Your task to perform on an android device: Go to ESPN.com Image 0: 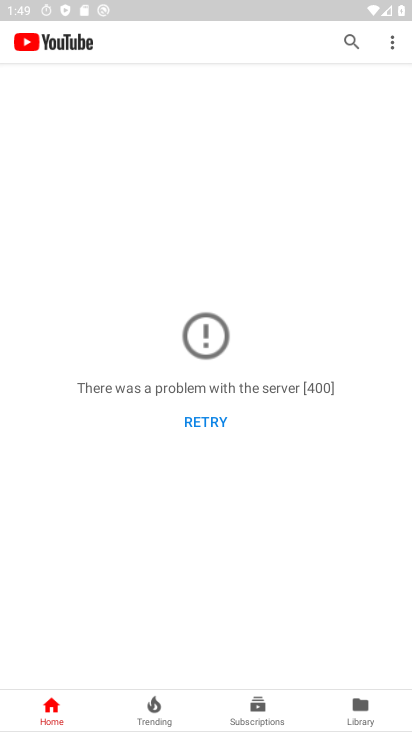
Step 0: press home button
Your task to perform on an android device: Go to ESPN.com Image 1: 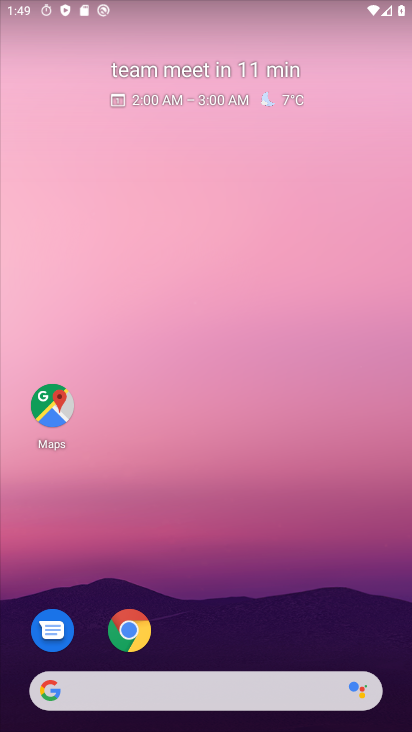
Step 1: drag from (226, 670) to (186, 304)
Your task to perform on an android device: Go to ESPN.com Image 2: 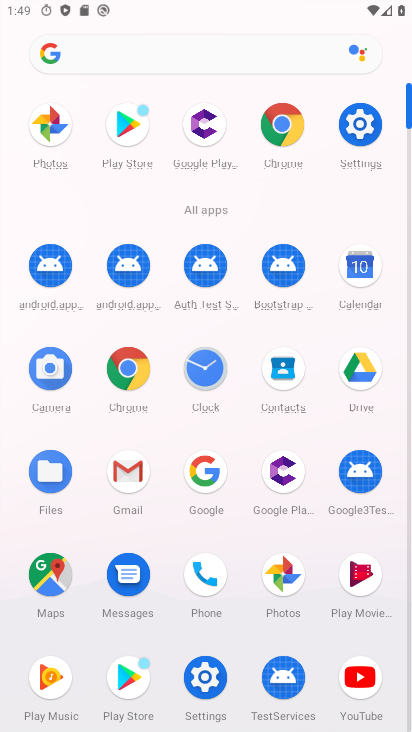
Step 2: click (288, 131)
Your task to perform on an android device: Go to ESPN.com Image 3: 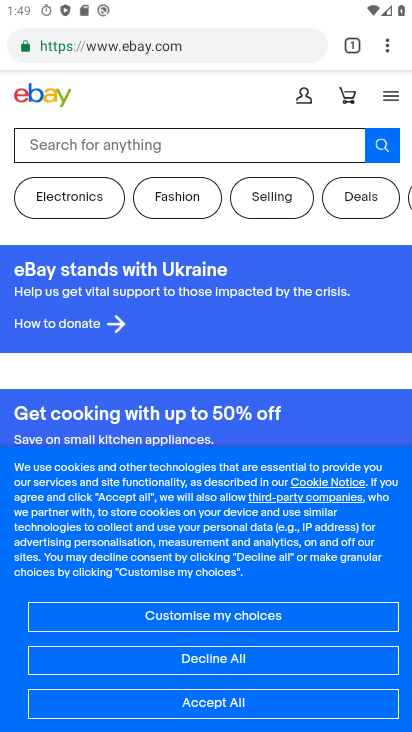
Step 3: click (212, 59)
Your task to perform on an android device: Go to ESPN.com Image 4: 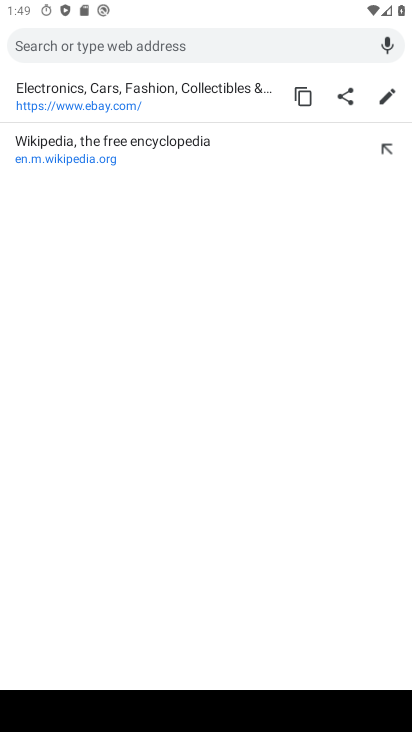
Step 4: type "espn.com"
Your task to perform on an android device: Go to ESPN.com Image 5: 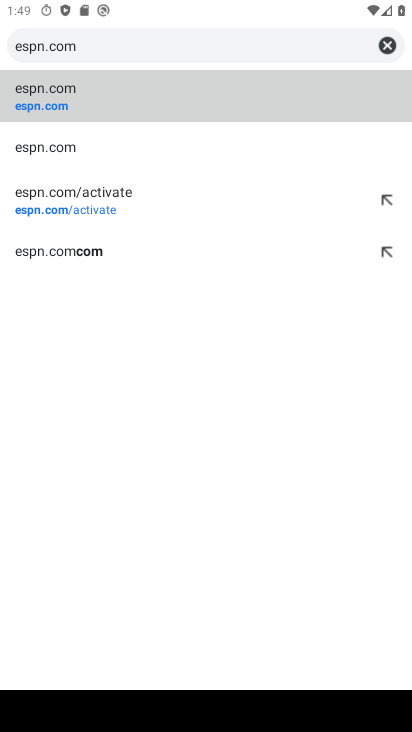
Step 5: click (64, 102)
Your task to perform on an android device: Go to ESPN.com Image 6: 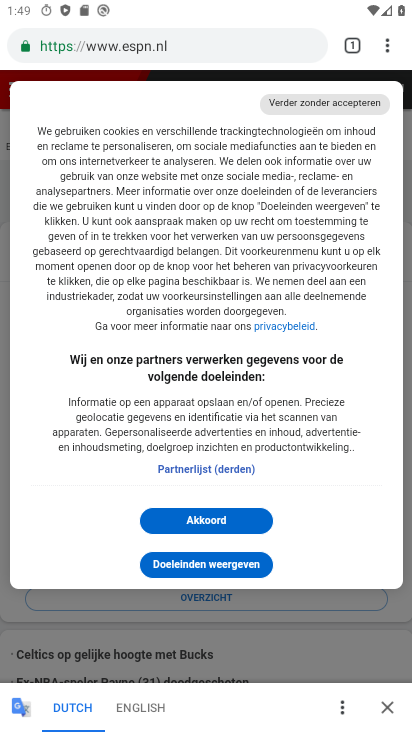
Step 6: task complete